Your task to perform on an android device: toggle pop-ups in chrome Image 0: 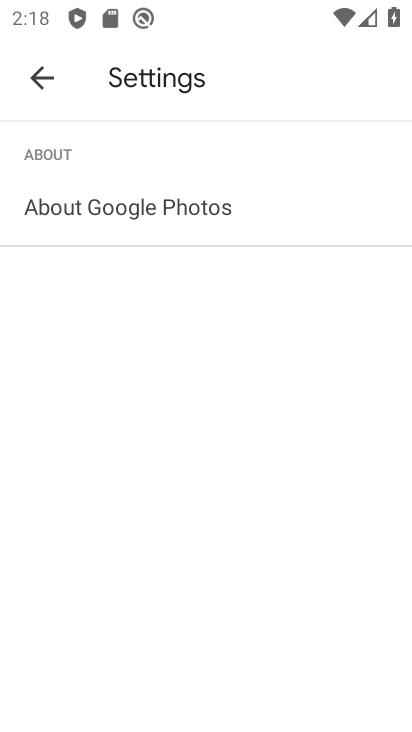
Step 0: press home button
Your task to perform on an android device: toggle pop-ups in chrome Image 1: 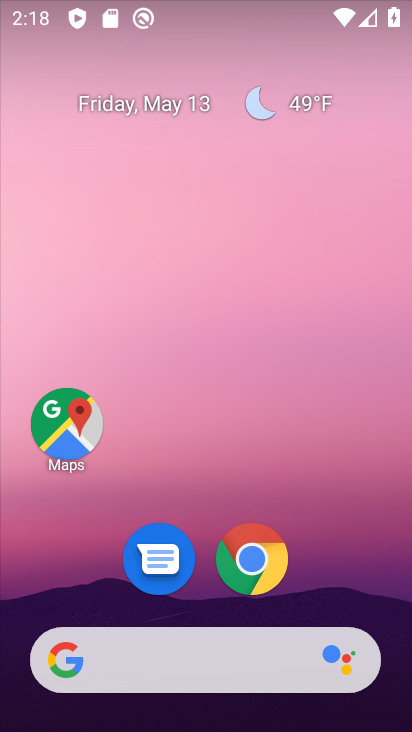
Step 1: click (251, 553)
Your task to perform on an android device: toggle pop-ups in chrome Image 2: 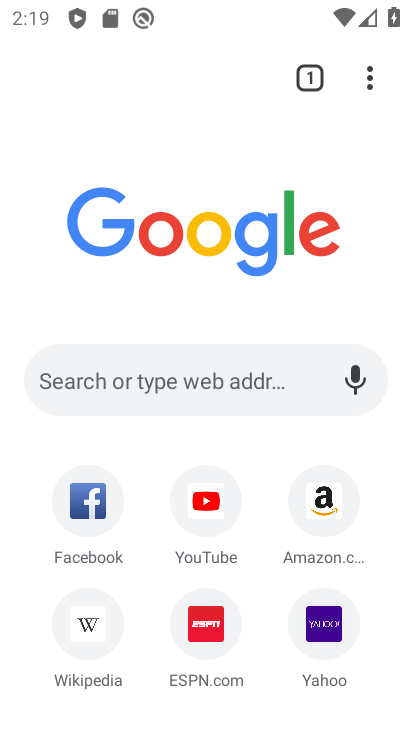
Step 2: click (371, 83)
Your task to perform on an android device: toggle pop-ups in chrome Image 3: 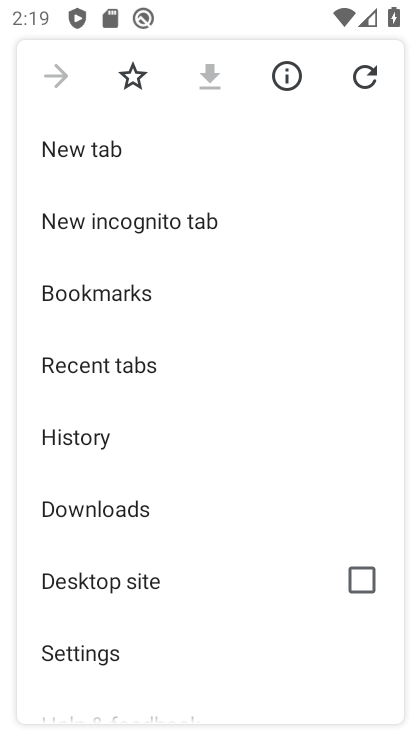
Step 3: drag from (200, 581) to (172, 359)
Your task to perform on an android device: toggle pop-ups in chrome Image 4: 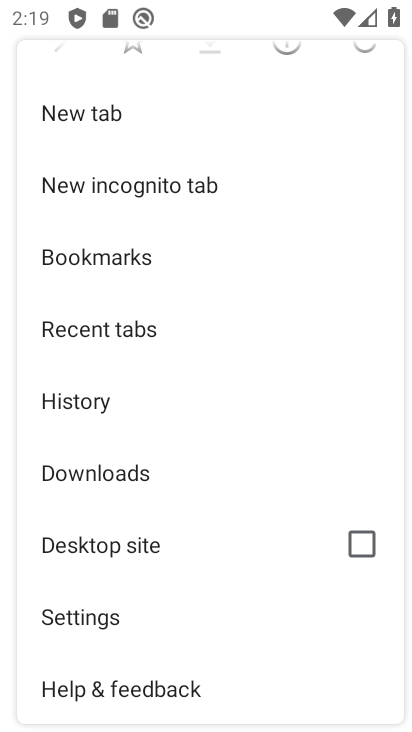
Step 4: click (84, 620)
Your task to perform on an android device: toggle pop-ups in chrome Image 5: 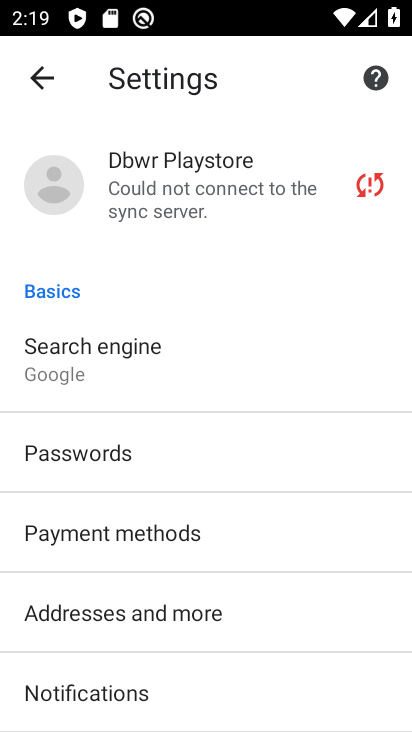
Step 5: drag from (247, 632) to (241, 165)
Your task to perform on an android device: toggle pop-ups in chrome Image 6: 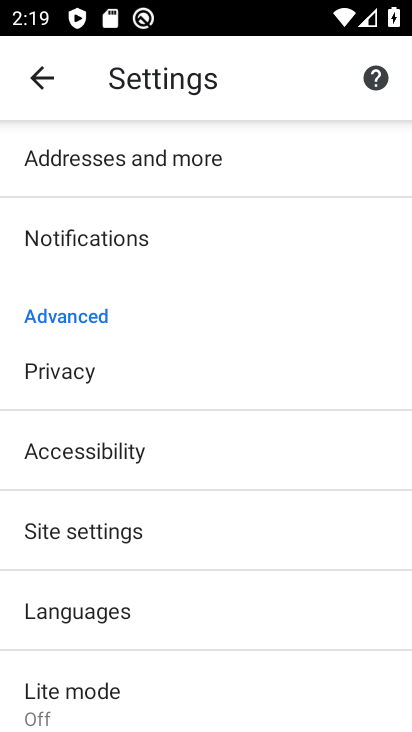
Step 6: click (87, 528)
Your task to perform on an android device: toggle pop-ups in chrome Image 7: 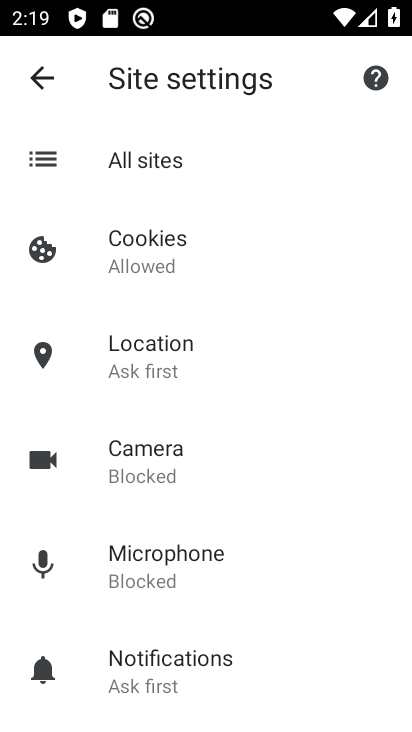
Step 7: drag from (277, 647) to (248, 257)
Your task to perform on an android device: toggle pop-ups in chrome Image 8: 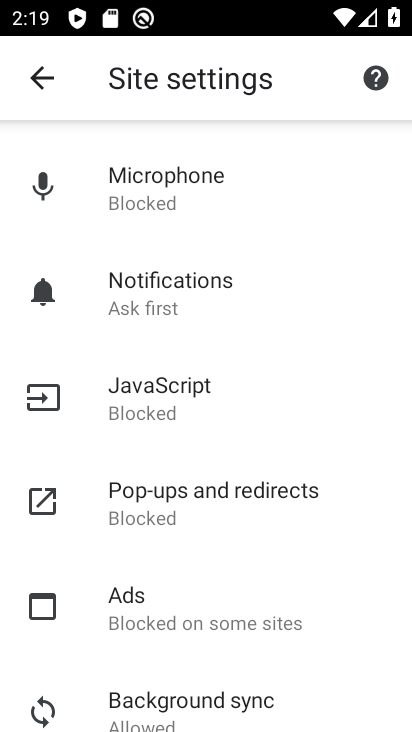
Step 8: click (165, 484)
Your task to perform on an android device: toggle pop-ups in chrome Image 9: 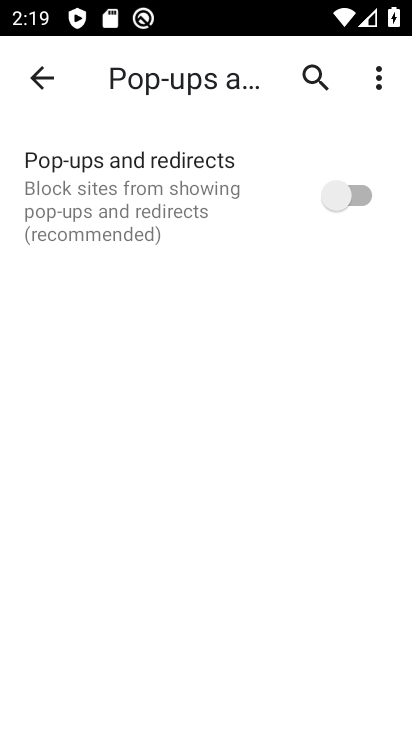
Step 9: click (351, 191)
Your task to perform on an android device: toggle pop-ups in chrome Image 10: 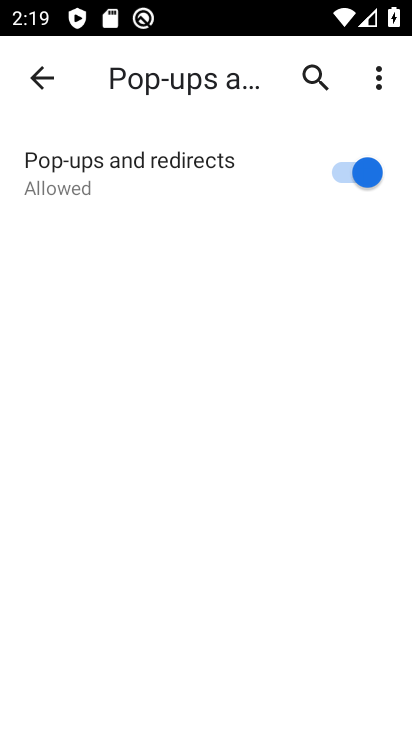
Step 10: task complete